Your task to perform on an android device: open chrome and create a bookmark for the current page Image 0: 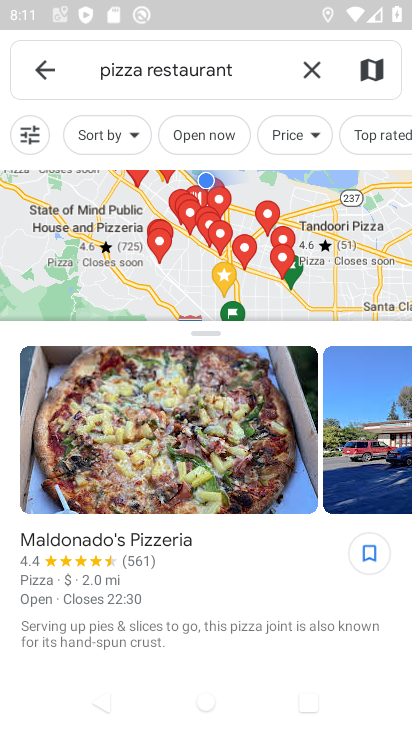
Step 0: press home button
Your task to perform on an android device: open chrome and create a bookmark for the current page Image 1: 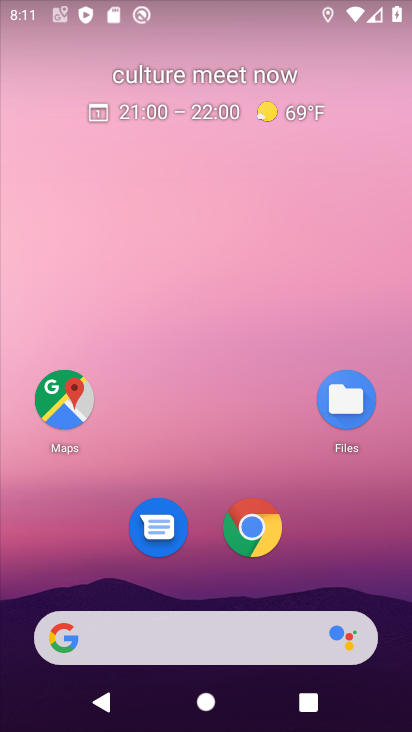
Step 1: click (256, 520)
Your task to perform on an android device: open chrome and create a bookmark for the current page Image 2: 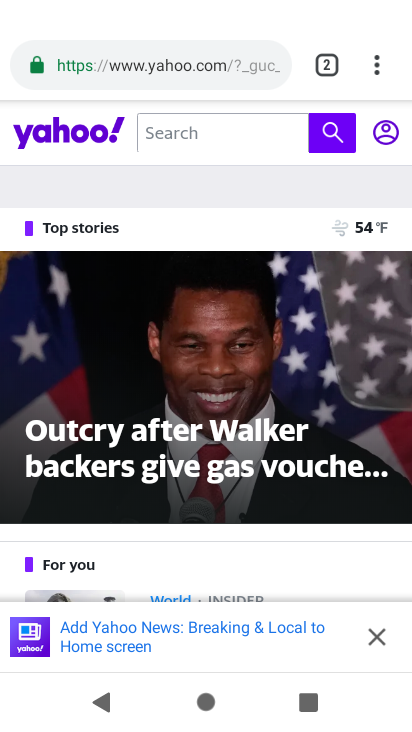
Step 2: click (372, 65)
Your task to perform on an android device: open chrome and create a bookmark for the current page Image 3: 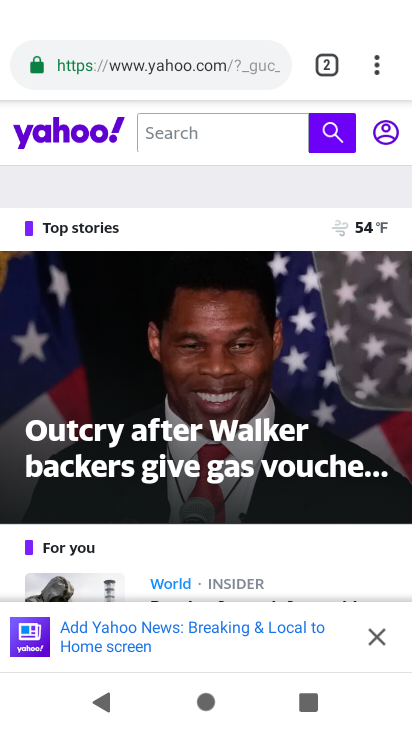
Step 3: click (372, 63)
Your task to perform on an android device: open chrome and create a bookmark for the current page Image 4: 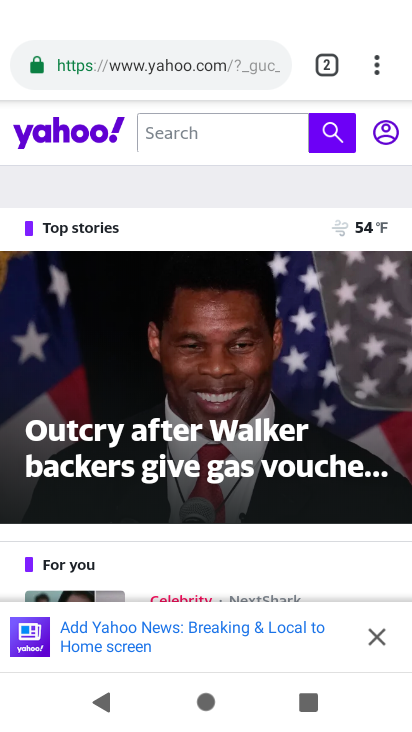
Step 4: click (372, 63)
Your task to perform on an android device: open chrome and create a bookmark for the current page Image 5: 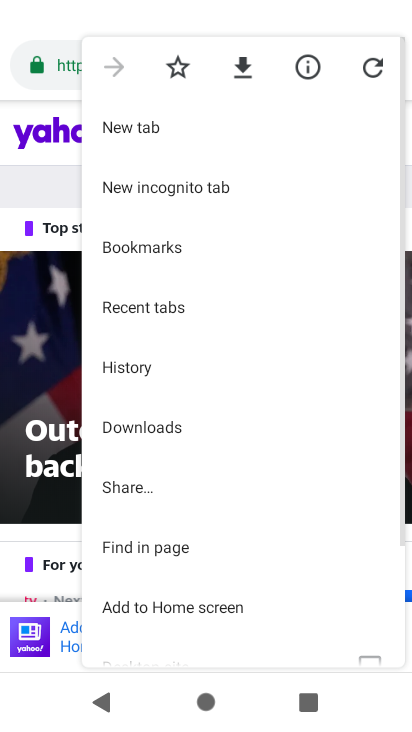
Step 5: click (181, 58)
Your task to perform on an android device: open chrome and create a bookmark for the current page Image 6: 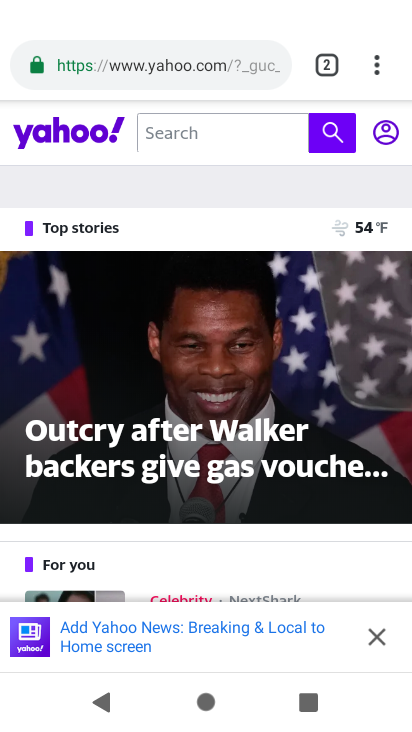
Step 6: task complete